Your task to perform on an android device: Go to wifi settings Image 0: 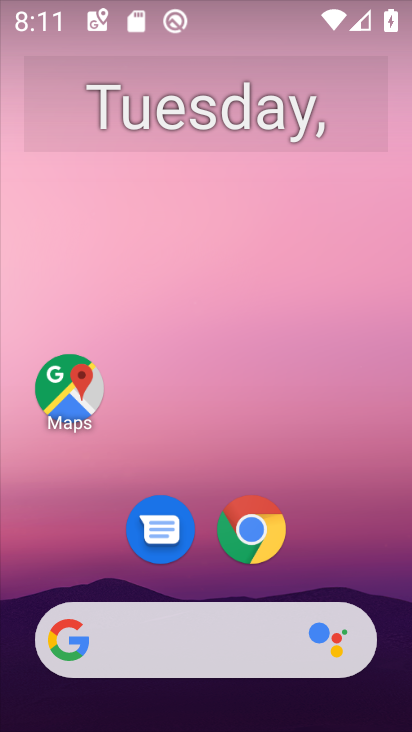
Step 0: drag from (118, 18) to (204, 428)
Your task to perform on an android device: Go to wifi settings Image 1: 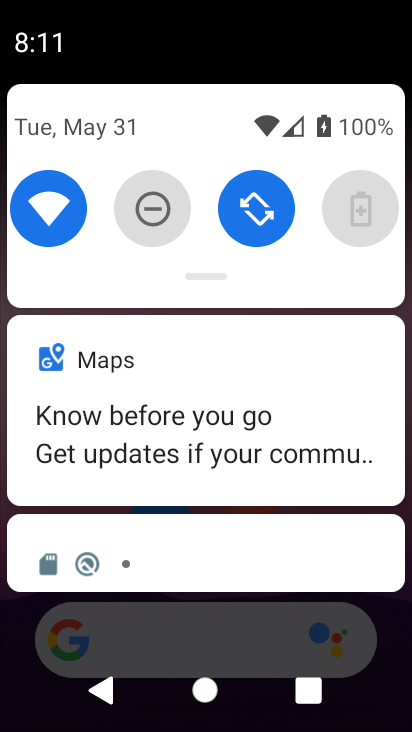
Step 1: click (55, 194)
Your task to perform on an android device: Go to wifi settings Image 2: 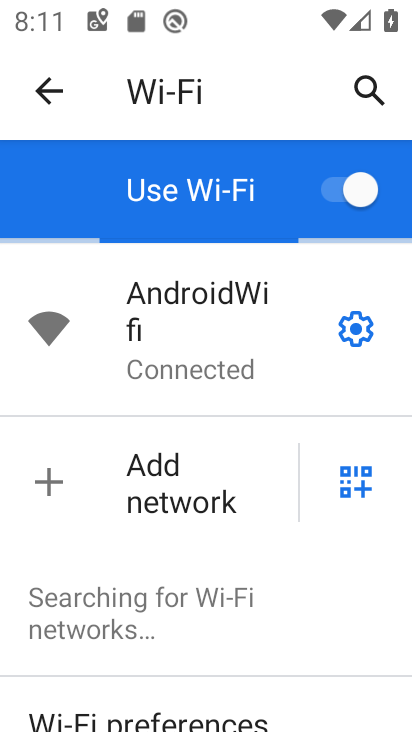
Step 2: task complete